Your task to perform on an android device: refresh tabs in the chrome app Image 0: 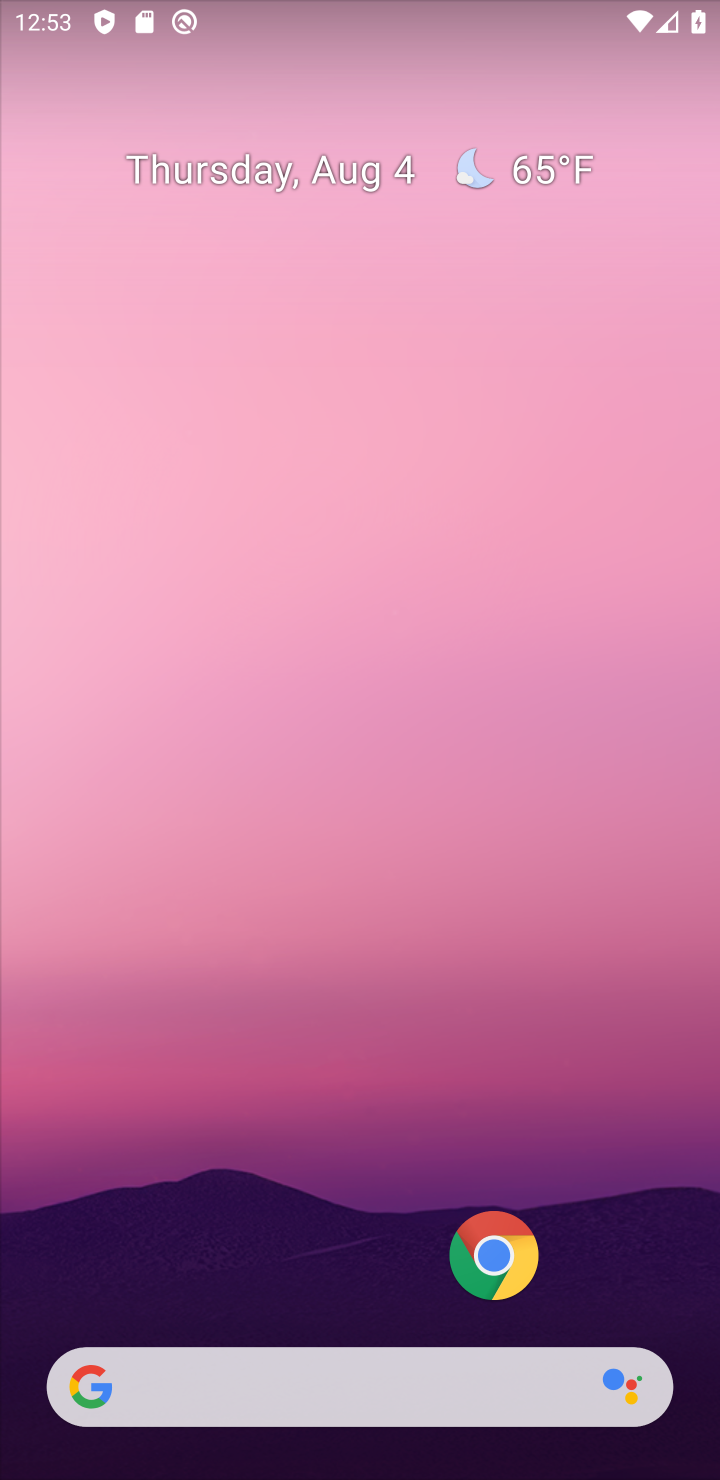
Step 0: drag from (221, 1117) to (413, 242)
Your task to perform on an android device: refresh tabs in the chrome app Image 1: 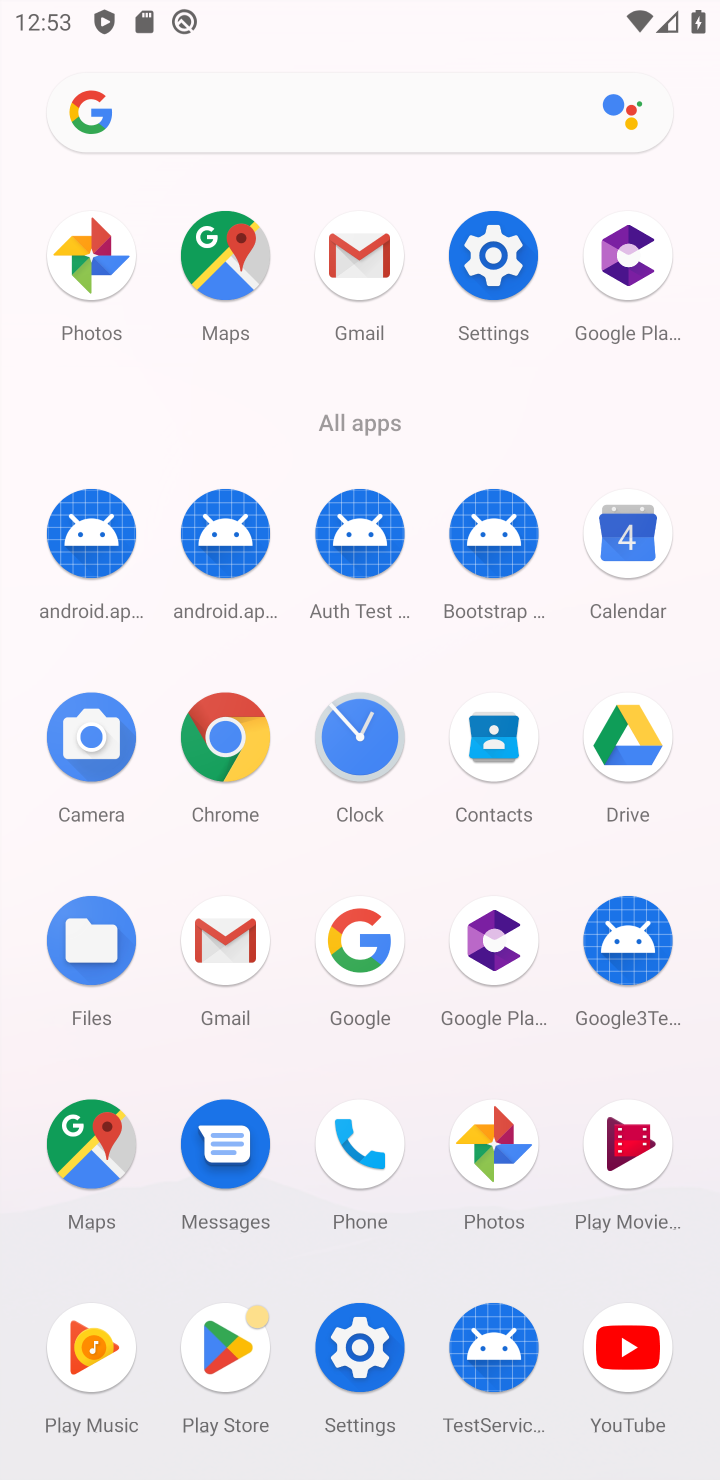
Step 1: click (235, 746)
Your task to perform on an android device: refresh tabs in the chrome app Image 2: 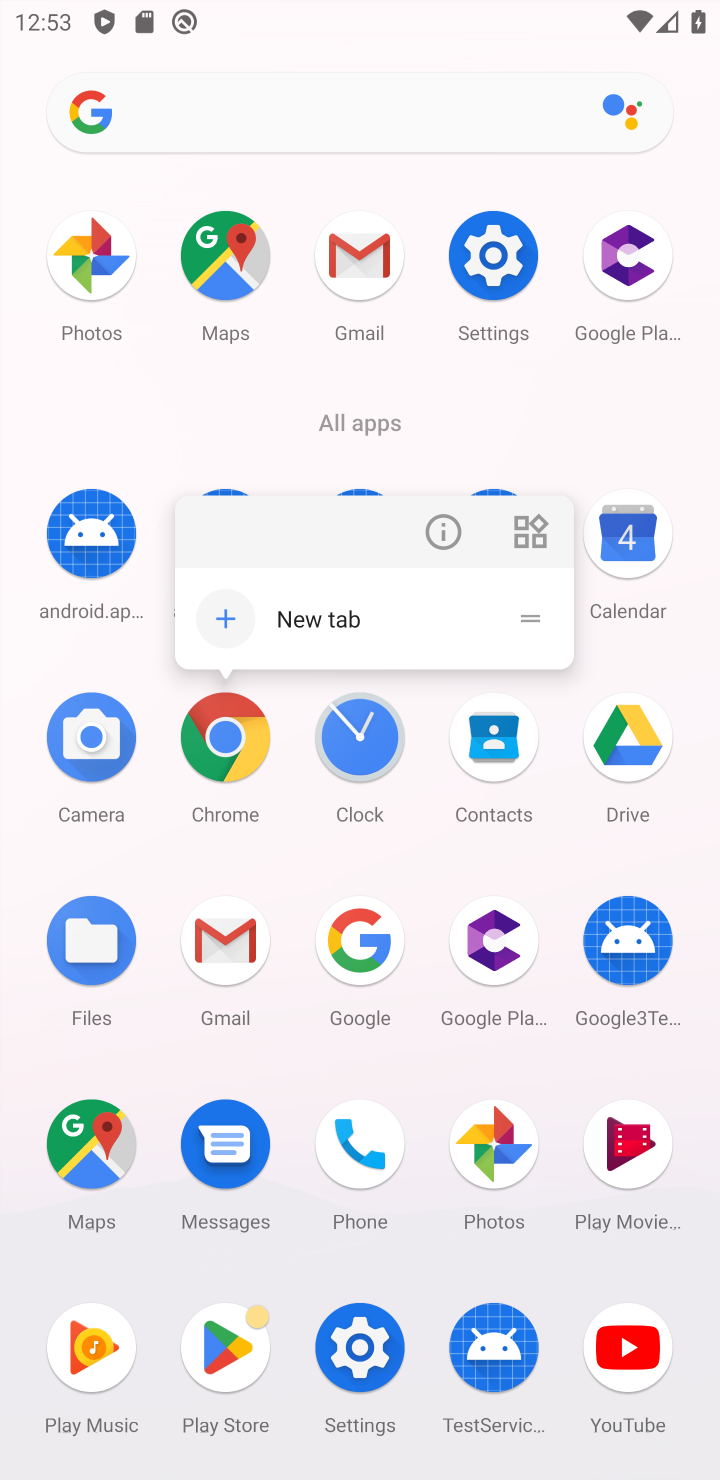
Step 2: click (235, 741)
Your task to perform on an android device: refresh tabs in the chrome app Image 3: 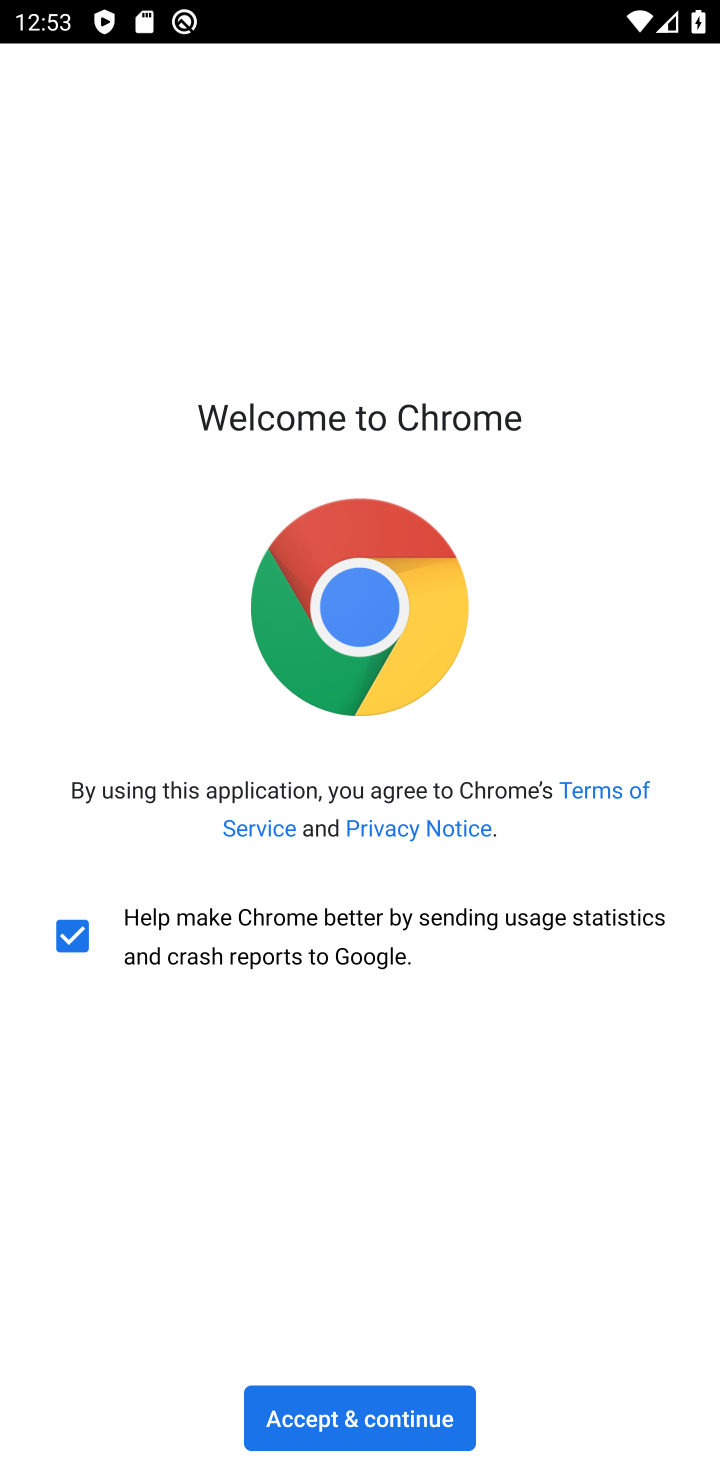
Step 3: click (337, 1405)
Your task to perform on an android device: refresh tabs in the chrome app Image 4: 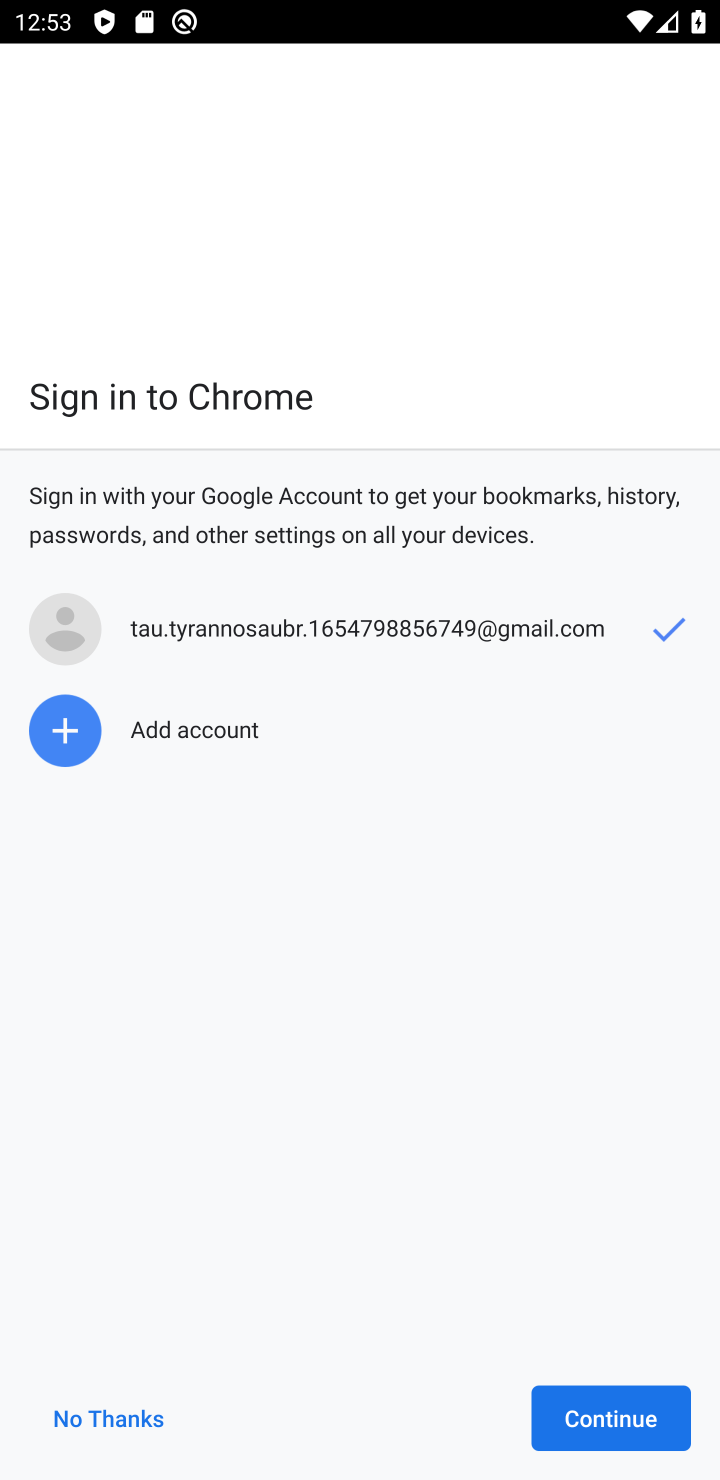
Step 4: click (168, 1421)
Your task to perform on an android device: refresh tabs in the chrome app Image 5: 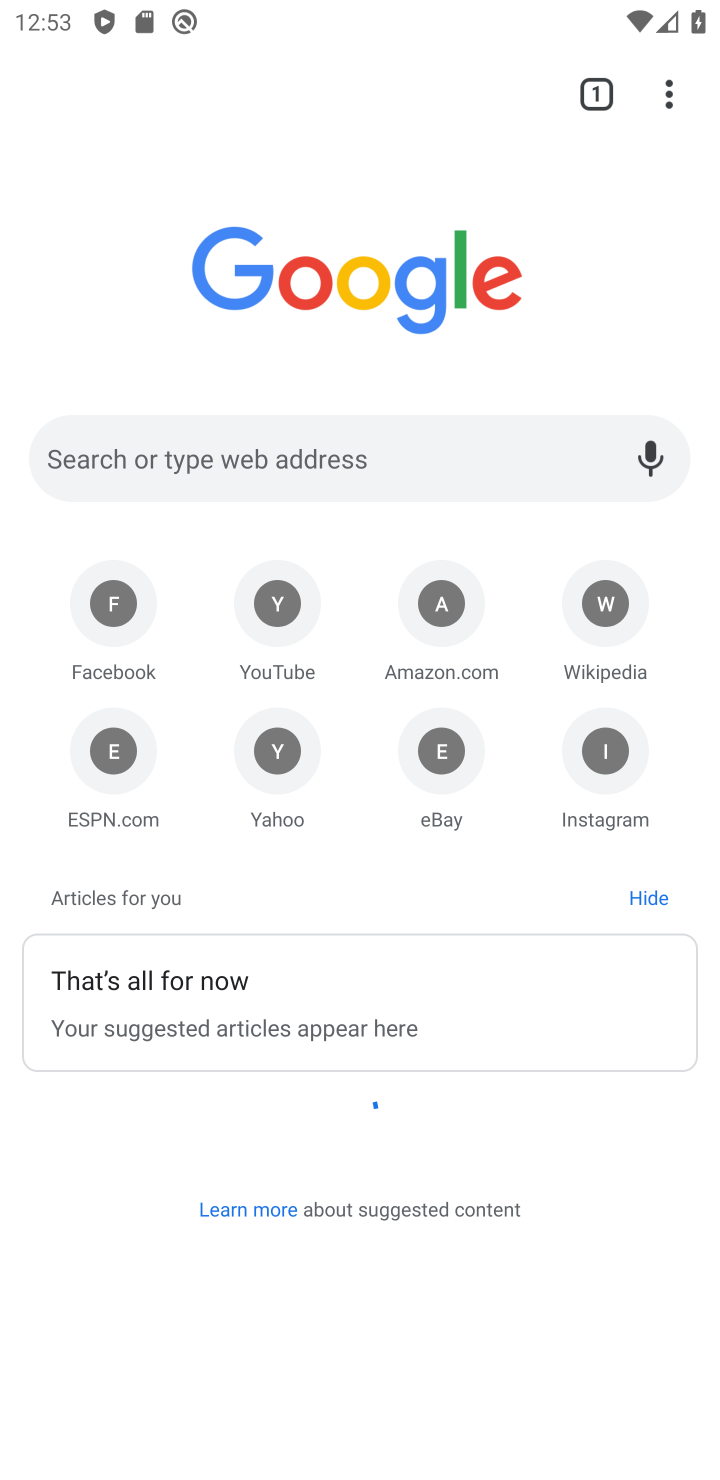
Step 5: click (684, 101)
Your task to perform on an android device: refresh tabs in the chrome app Image 6: 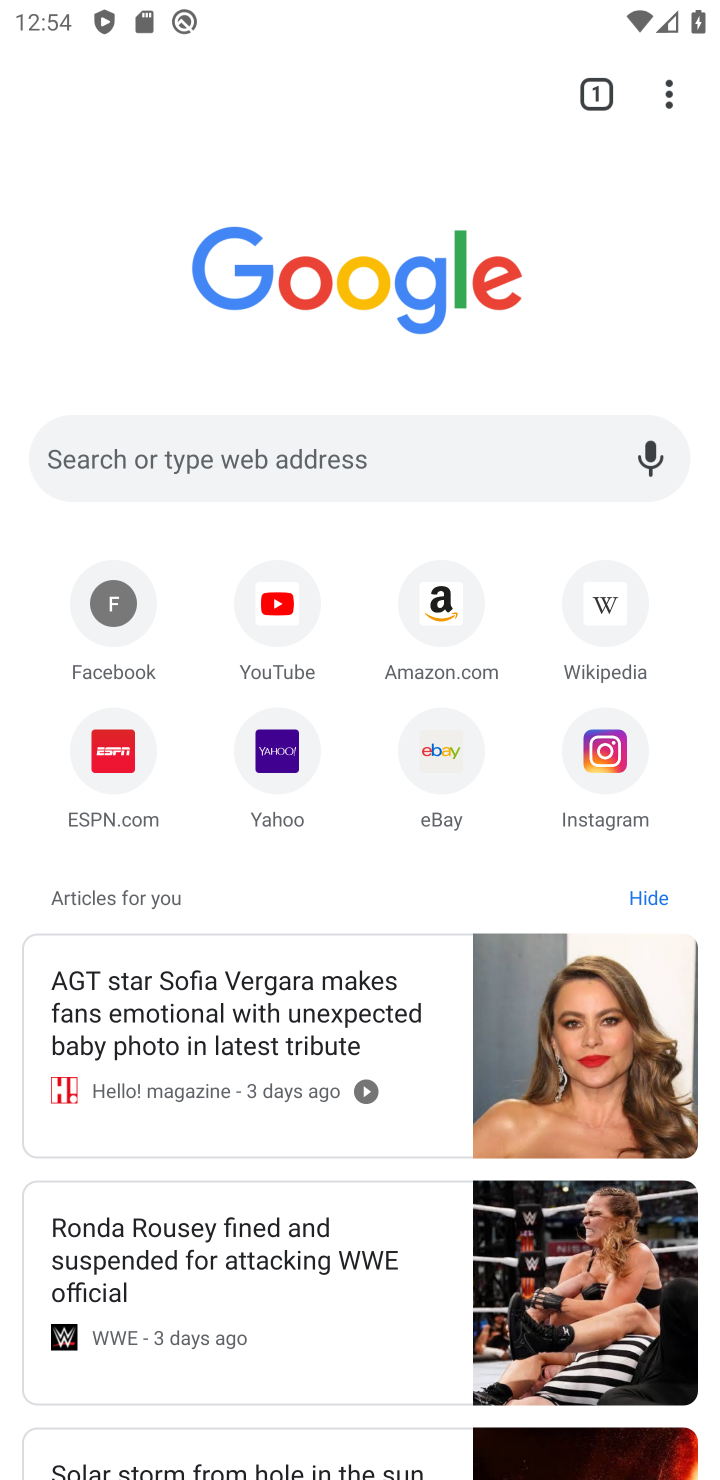
Step 6: task complete